Your task to perform on an android device: turn off airplane mode Image 0: 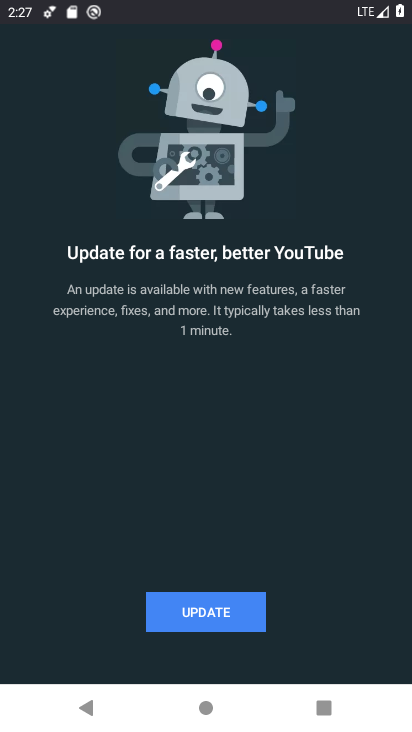
Step 0: press home button
Your task to perform on an android device: turn off airplane mode Image 1: 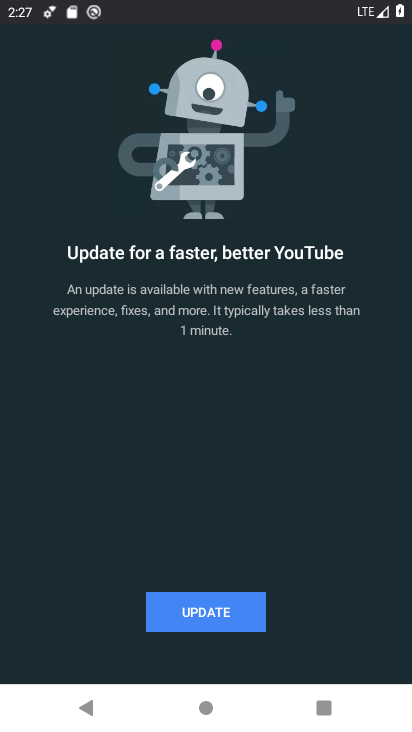
Step 1: press home button
Your task to perform on an android device: turn off airplane mode Image 2: 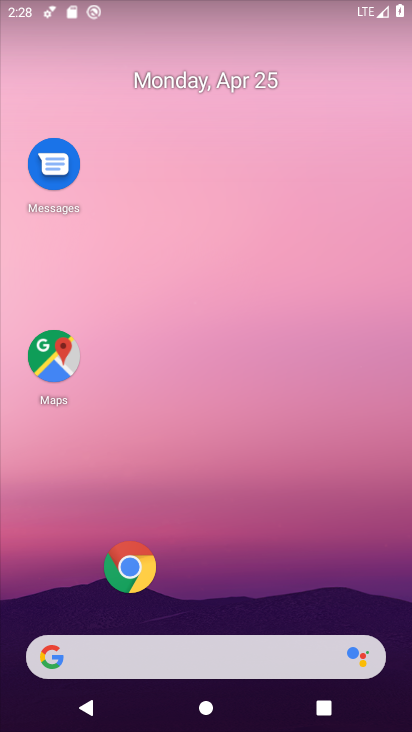
Step 2: drag from (286, 620) to (295, 161)
Your task to perform on an android device: turn off airplane mode Image 3: 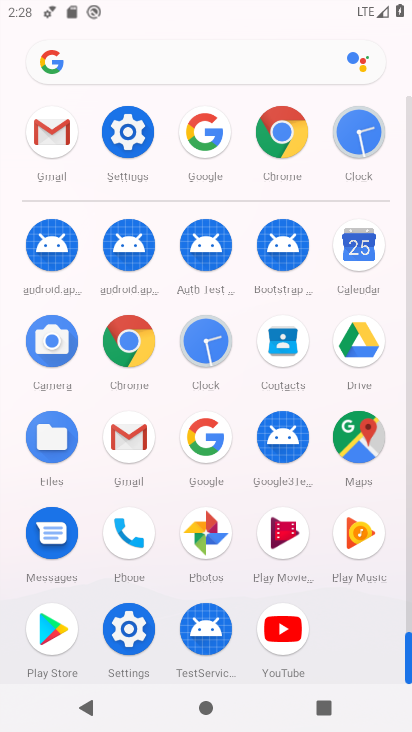
Step 3: click (128, 150)
Your task to perform on an android device: turn off airplane mode Image 4: 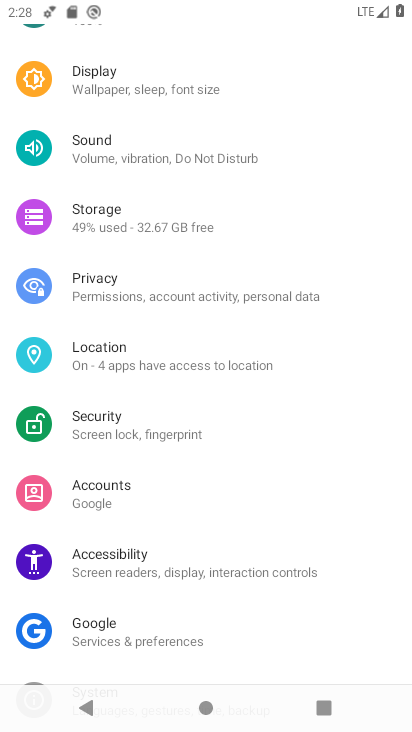
Step 4: drag from (153, 349) to (158, 539)
Your task to perform on an android device: turn off airplane mode Image 5: 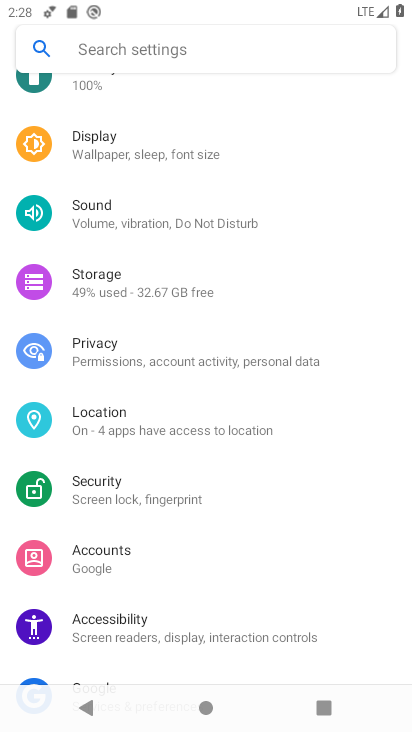
Step 5: drag from (222, 255) to (232, 657)
Your task to perform on an android device: turn off airplane mode Image 6: 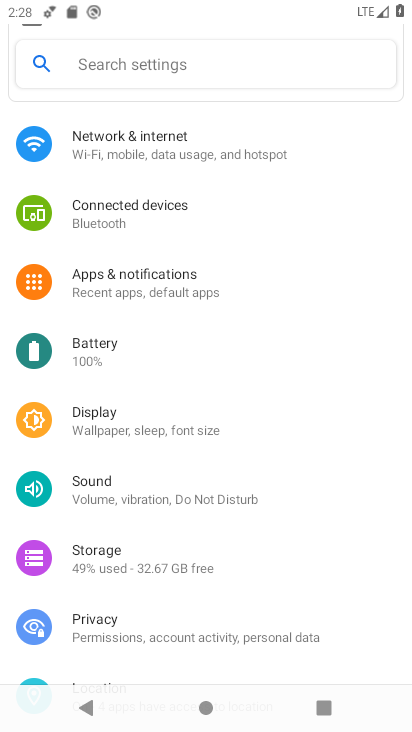
Step 6: drag from (221, 387) to (221, 594)
Your task to perform on an android device: turn off airplane mode Image 7: 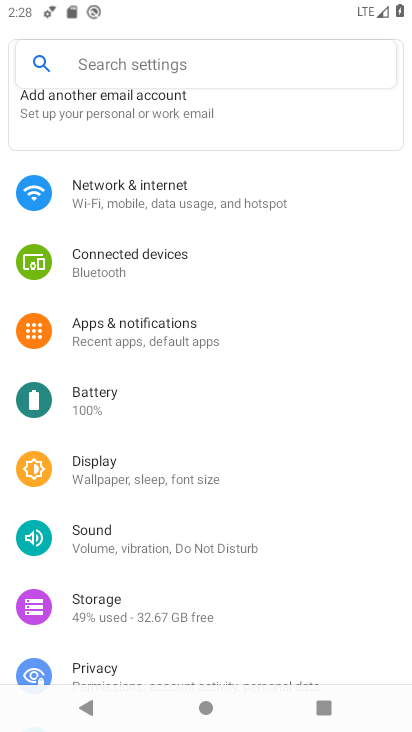
Step 7: click (260, 194)
Your task to perform on an android device: turn off airplane mode Image 8: 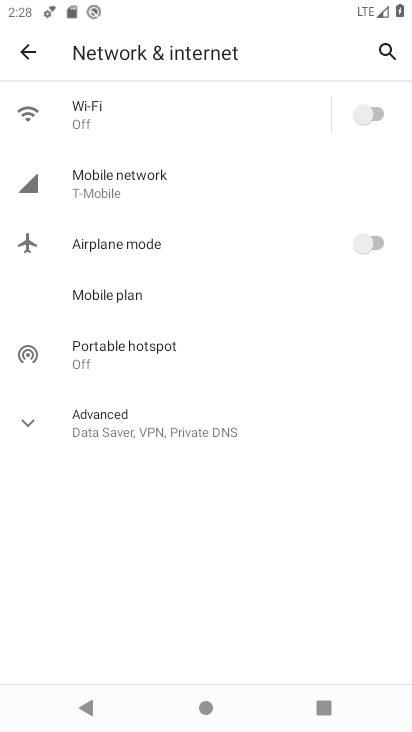
Step 8: task complete